Your task to perform on an android device: Go to settings Image 0: 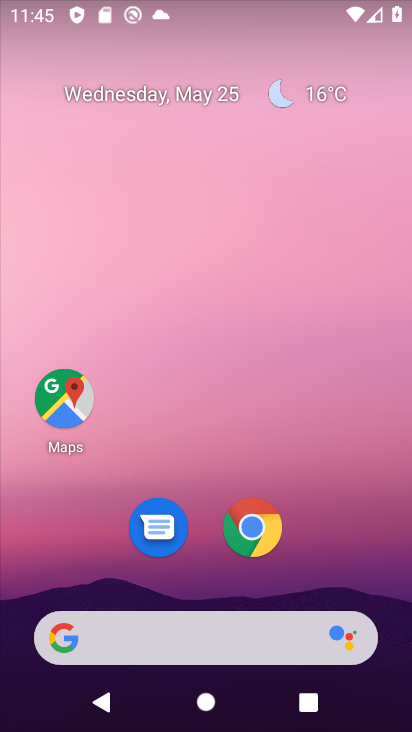
Step 0: drag from (366, 573) to (388, 234)
Your task to perform on an android device: Go to settings Image 1: 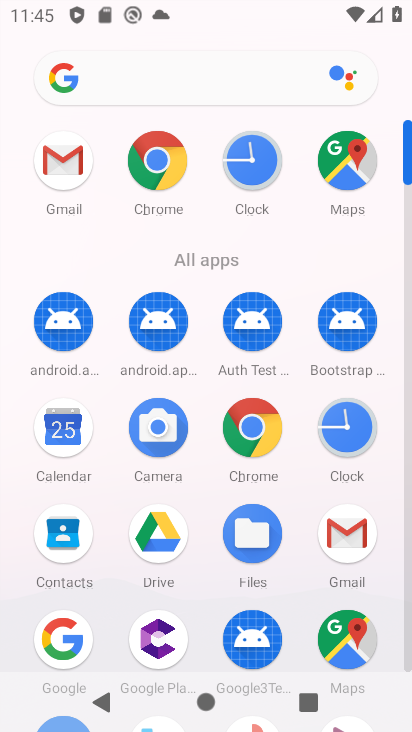
Step 1: click (407, 663)
Your task to perform on an android device: Go to settings Image 2: 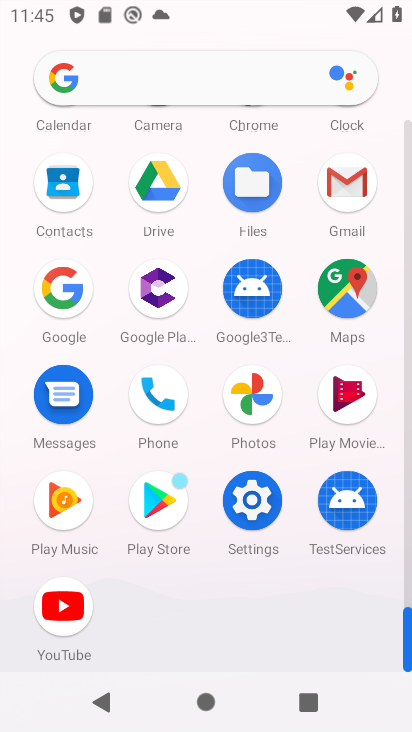
Step 2: click (261, 481)
Your task to perform on an android device: Go to settings Image 3: 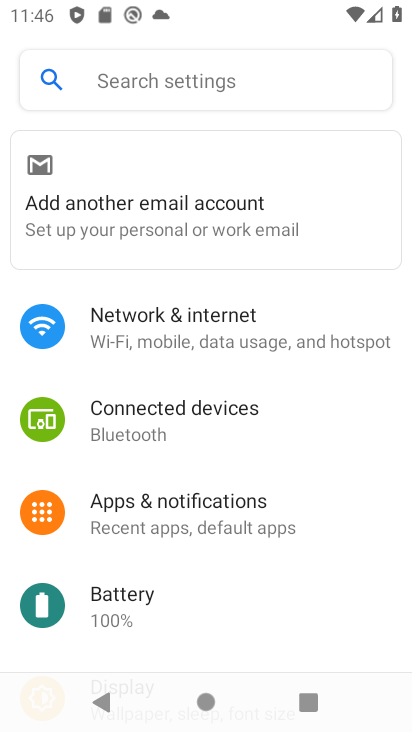
Step 3: task complete